Your task to perform on an android device: Search for "The Dispatcher" by John Scalzi on Goodreads Image 0: 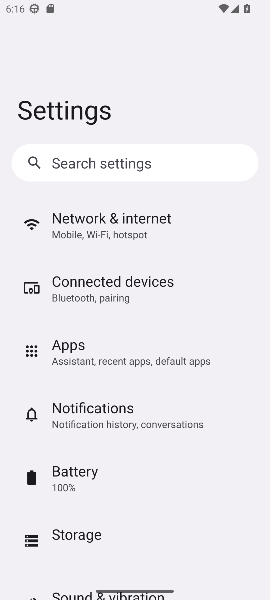
Step 0: press home button
Your task to perform on an android device: Search for "The Dispatcher" by John Scalzi on Goodreads Image 1: 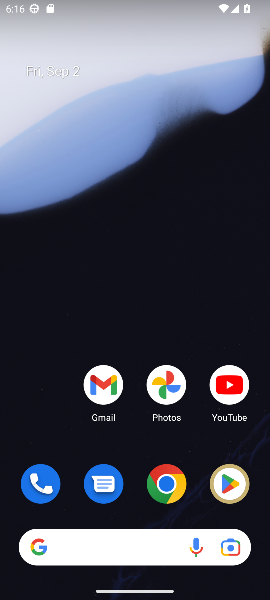
Step 1: click (171, 483)
Your task to perform on an android device: Search for "The Dispatcher" by John Scalzi on Goodreads Image 2: 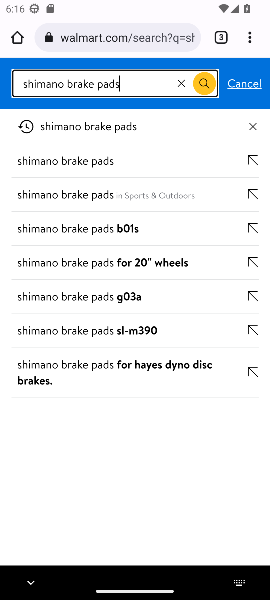
Step 2: click (166, 34)
Your task to perform on an android device: Search for "The Dispatcher" by John Scalzi on Goodreads Image 3: 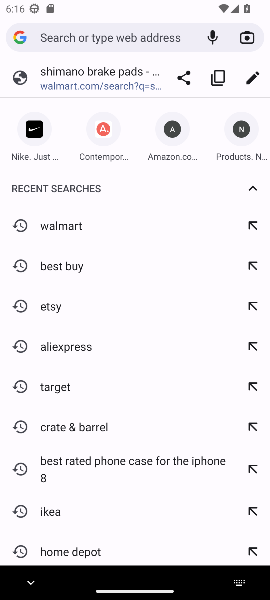
Step 3: type "Goodreads"
Your task to perform on an android device: Search for "The Dispatcher" by John Scalzi on Goodreads Image 4: 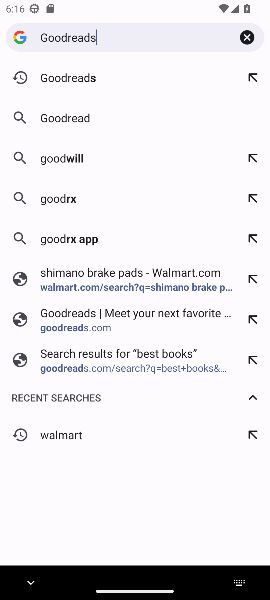
Step 4: press enter
Your task to perform on an android device: Search for "The Dispatcher" by John Scalzi on Goodreads Image 5: 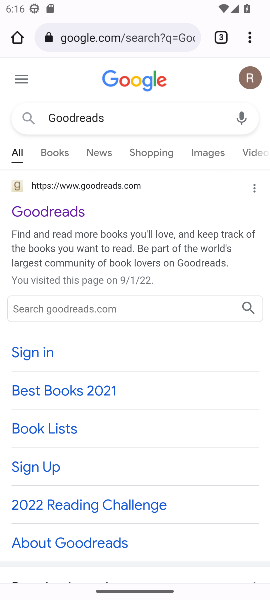
Step 5: click (81, 211)
Your task to perform on an android device: Search for "The Dispatcher" by John Scalzi on Goodreads Image 6: 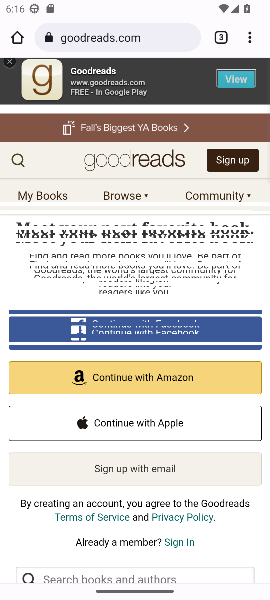
Step 6: click (17, 158)
Your task to perform on an android device: Search for "The Dispatcher" by John Scalzi on Goodreads Image 7: 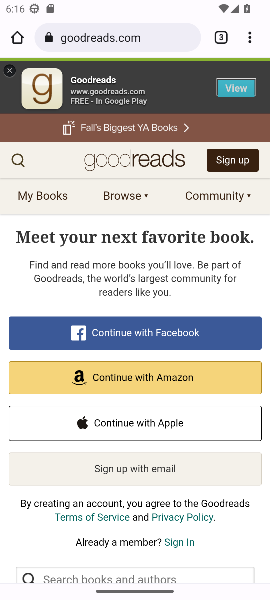
Step 7: click (17, 161)
Your task to perform on an android device: Search for "The Dispatcher" by John Scalzi on Goodreads Image 8: 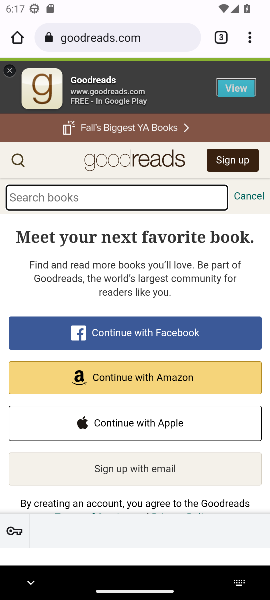
Step 8: type "The Dispatcher by John Scalzi"
Your task to perform on an android device: Search for "The Dispatcher" by John Scalzi on Goodreads Image 9: 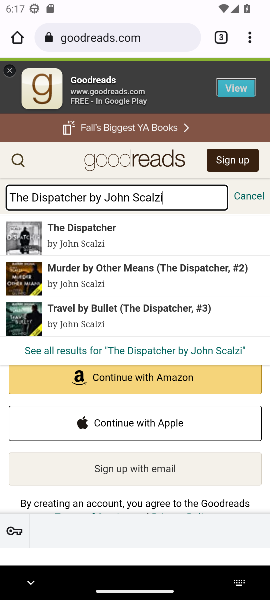
Step 9: click (155, 236)
Your task to perform on an android device: Search for "The Dispatcher" by John Scalzi on Goodreads Image 10: 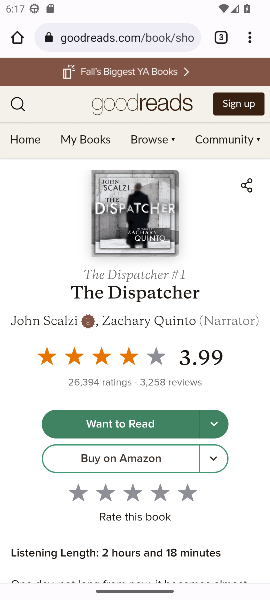
Step 10: task complete